Your task to perform on an android device: change the clock display to show seconds Image 0: 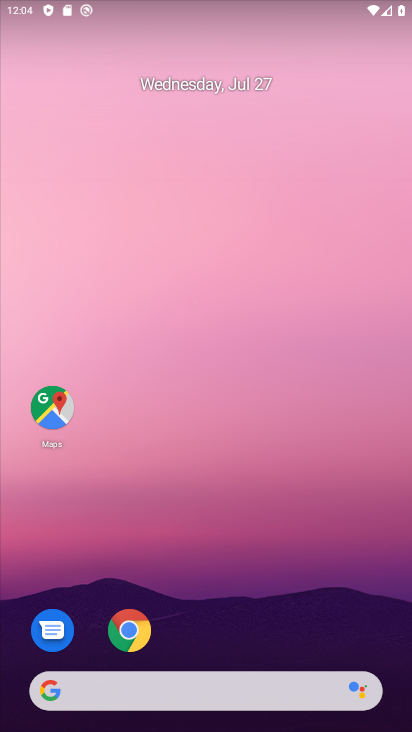
Step 0: drag from (226, 642) to (276, 7)
Your task to perform on an android device: change the clock display to show seconds Image 1: 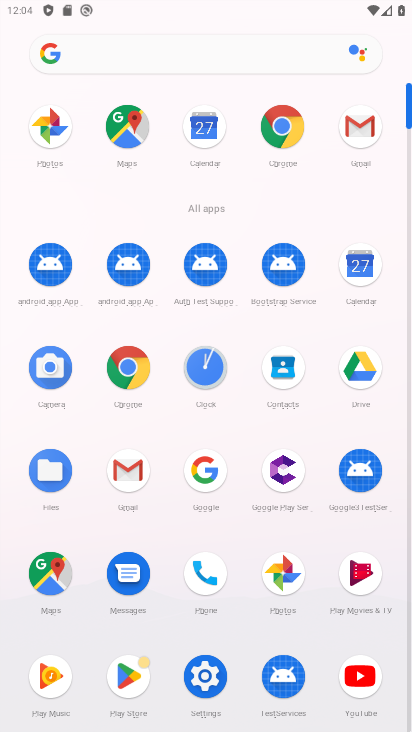
Step 1: click (213, 384)
Your task to perform on an android device: change the clock display to show seconds Image 2: 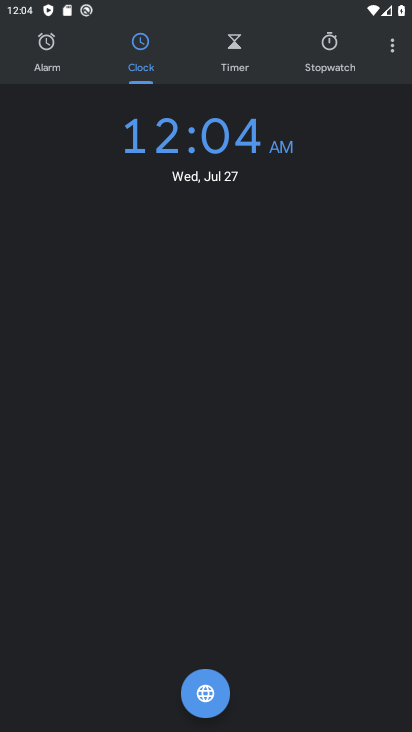
Step 2: click (390, 51)
Your task to perform on an android device: change the clock display to show seconds Image 3: 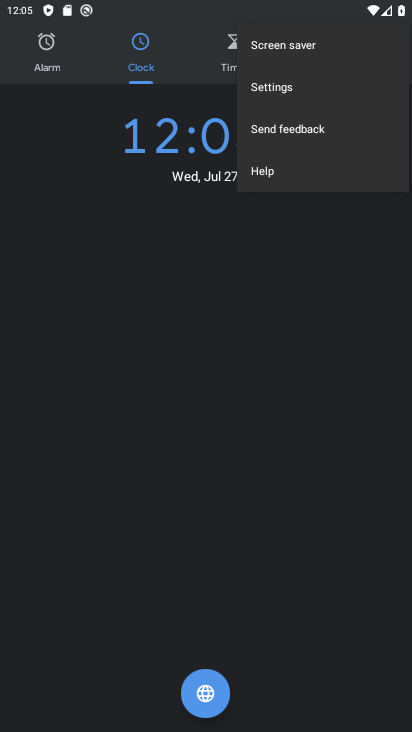
Step 3: click (292, 92)
Your task to perform on an android device: change the clock display to show seconds Image 4: 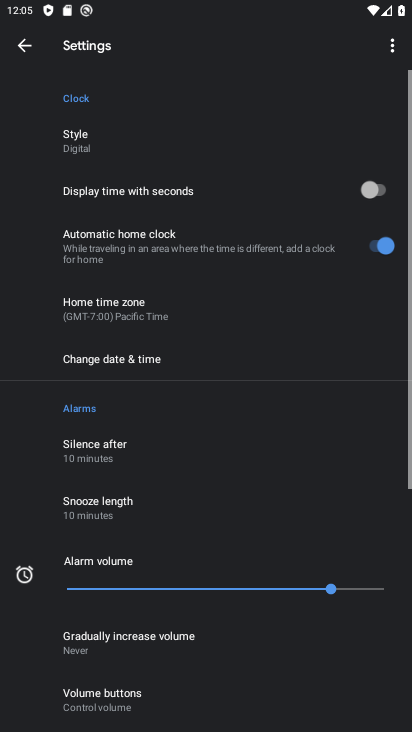
Step 4: click (78, 147)
Your task to perform on an android device: change the clock display to show seconds Image 5: 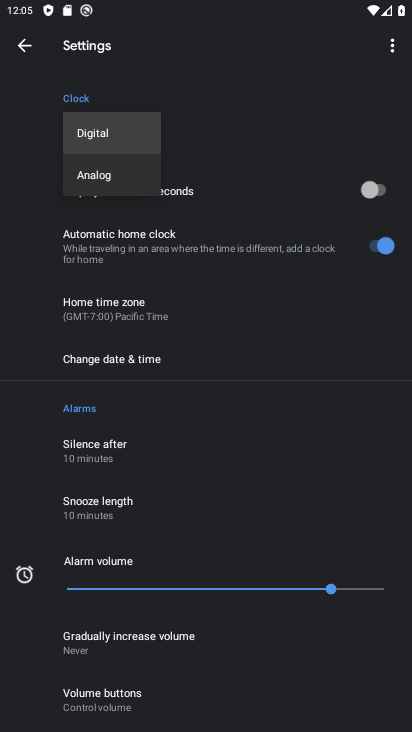
Step 5: click (101, 173)
Your task to perform on an android device: change the clock display to show seconds Image 6: 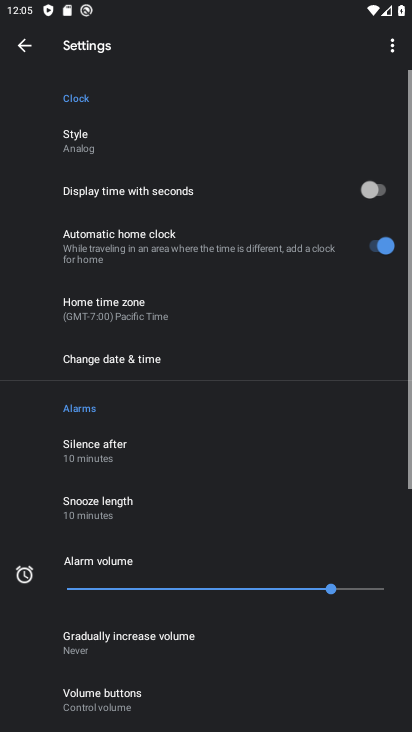
Step 6: click (376, 184)
Your task to perform on an android device: change the clock display to show seconds Image 7: 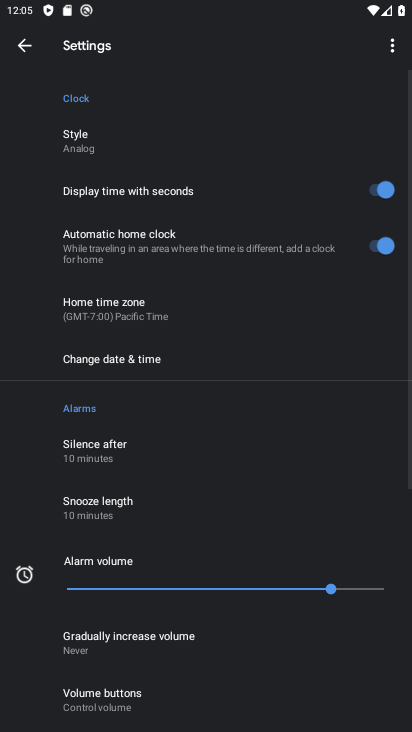
Step 7: task complete